Your task to perform on an android device: open chrome privacy settings Image 0: 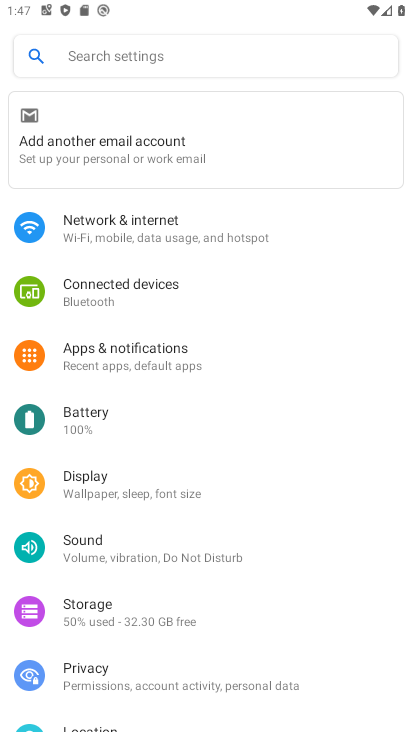
Step 0: press home button
Your task to perform on an android device: open chrome privacy settings Image 1: 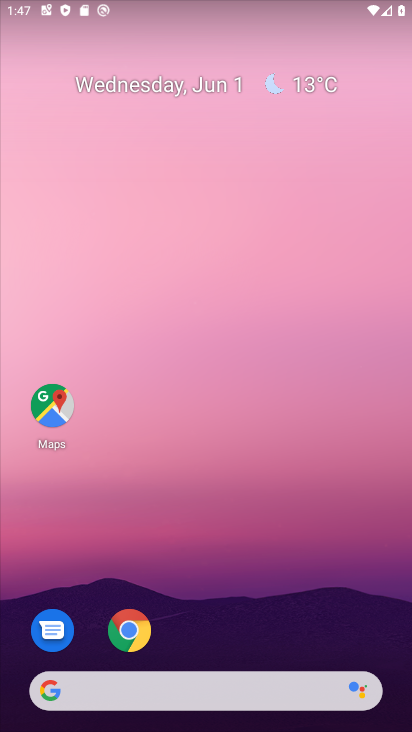
Step 1: click (125, 626)
Your task to perform on an android device: open chrome privacy settings Image 2: 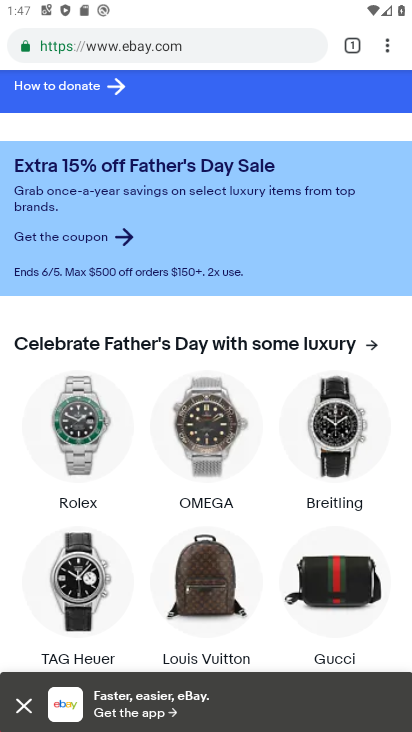
Step 2: click (396, 34)
Your task to perform on an android device: open chrome privacy settings Image 3: 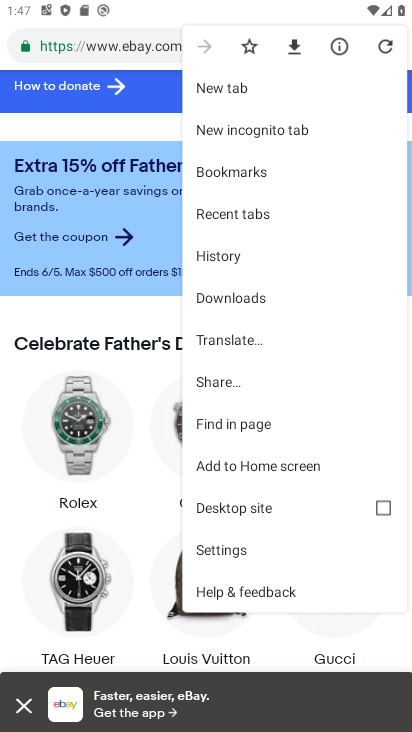
Step 3: click (255, 550)
Your task to perform on an android device: open chrome privacy settings Image 4: 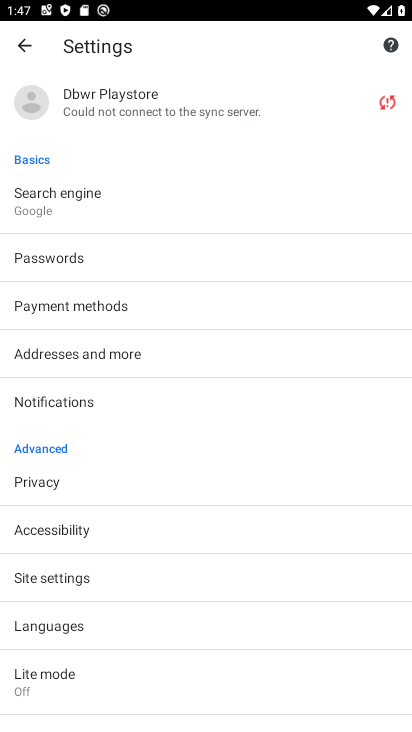
Step 4: click (105, 581)
Your task to perform on an android device: open chrome privacy settings Image 5: 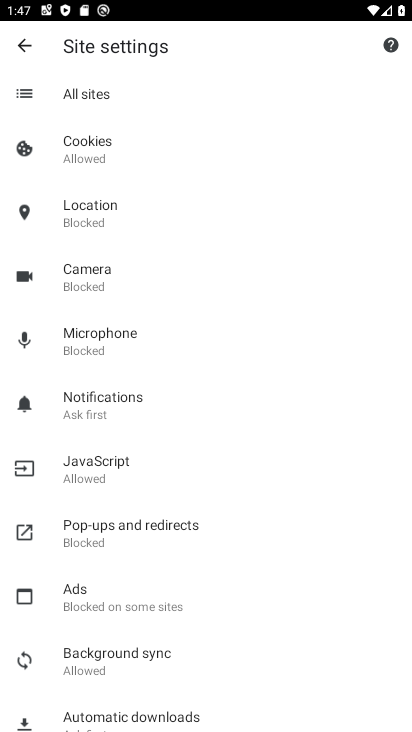
Step 5: click (25, 32)
Your task to perform on an android device: open chrome privacy settings Image 6: 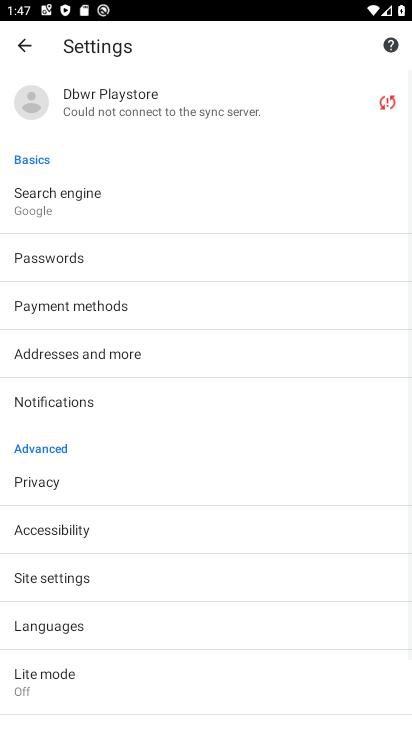
Step 6: click (78, 478)
Your task to perform on an android device: open chrome privacy settings Image 7: 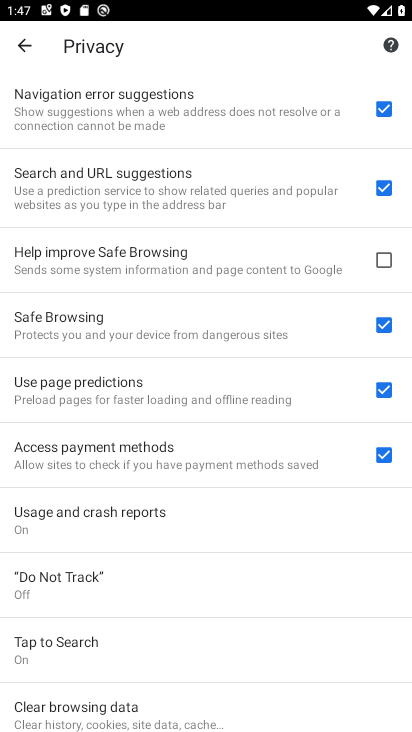
Step 7: task complete